Your task to perform on an android device: Open settings Image 0: 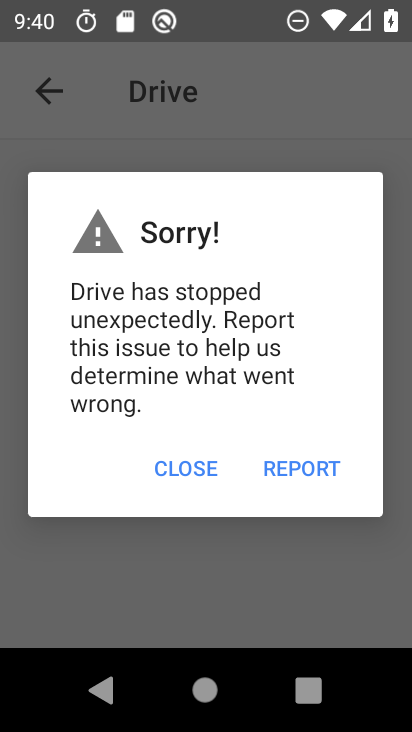
Step 0: press home button
Your task to perform on an android device: Open settings Image 1: 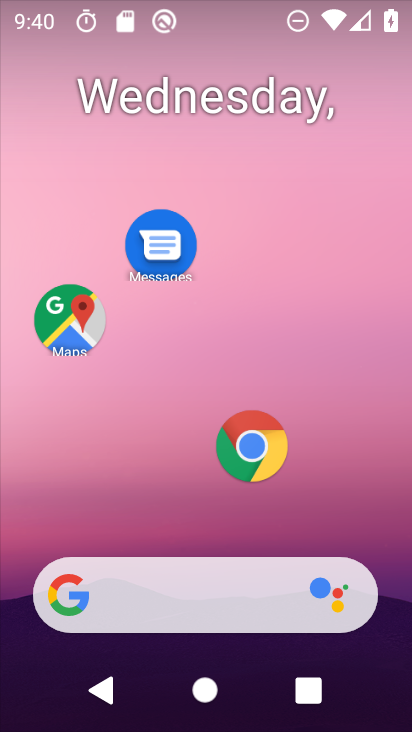
Step 1: drag from (185, 530) to (332, 153)
Your task to perform on an android device: Open settings Image 2: 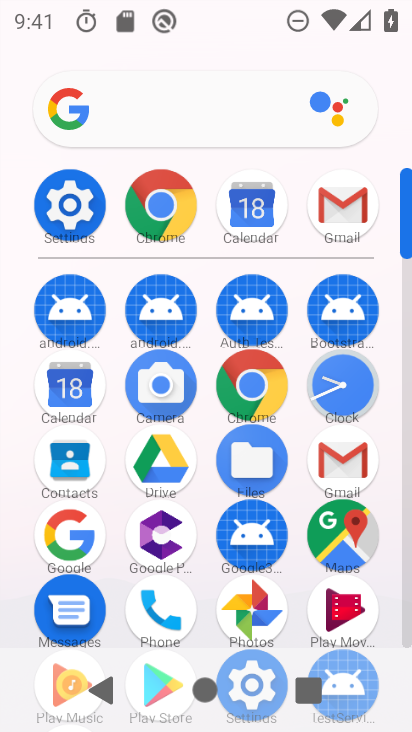
Step 2: drag from (211, 487) to (306, 198)
Your task to perform on an android device: Open settings Image 3: 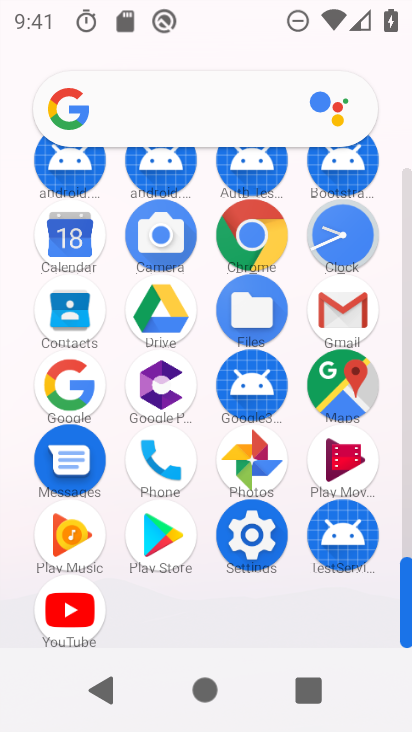
Step 3: click (243, 533)
Your task to perform on an android device: Open settings Image 4: 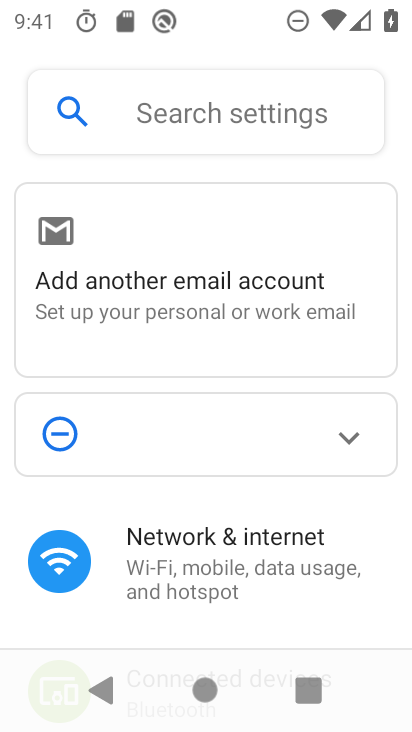
Step 4: task complete